Your task to perform on an android device: Search for vegetarian restaurants on Maps Image 0: 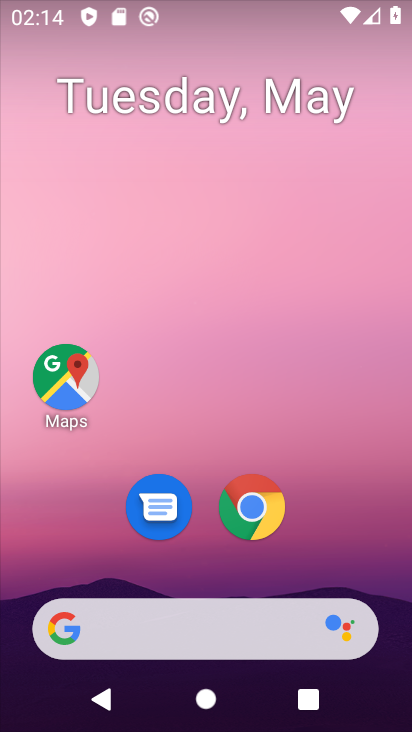
Step 0: click (44, 371)
Your task to perform on an android device: Search for vegetarian restaurants on Maps Image 1: 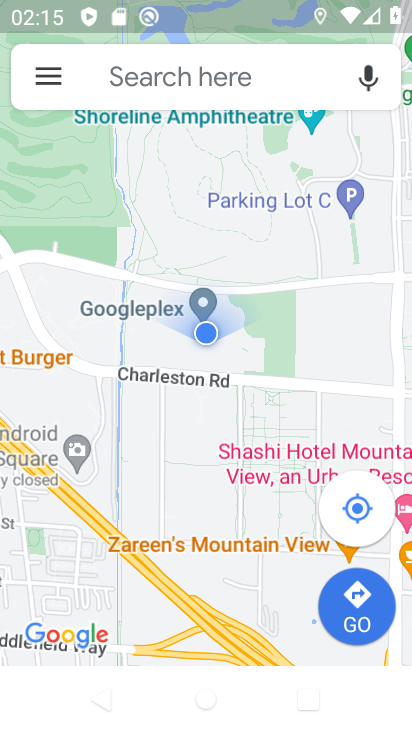
Step 1: click (161, 85)
Your task to perform on an android device: Search for vegetarian restaurants on Maps Image 2: 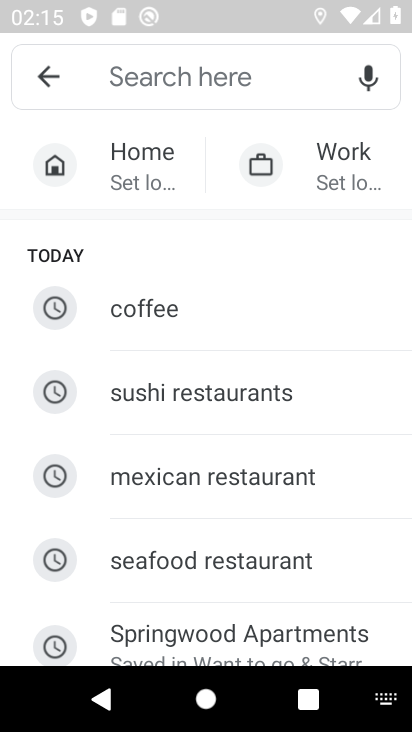
Step 2: drag from (170, 575) to (192, 224)
Your task to perform on an android device: Search for vegetarian restaurants on Maps Image 3: 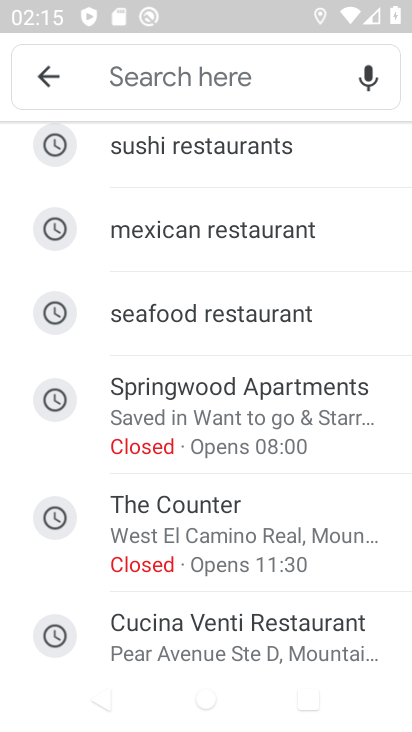
Step 3: drag from (185, 634) to (162, 728)
Your task to perform on an android device: Search for vegetarian restaurants on Maps Image 4: 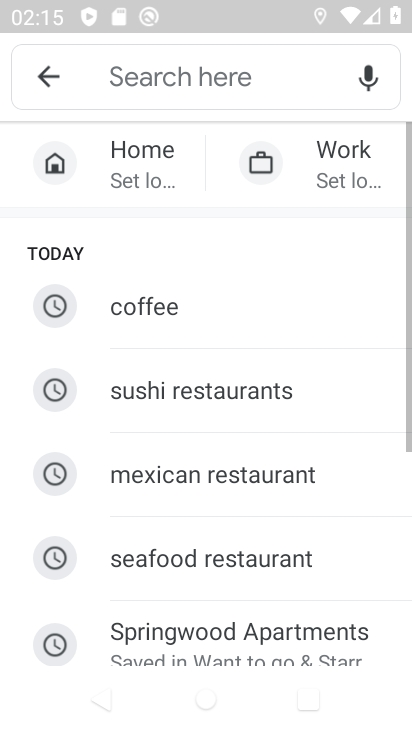
Step 4: click (189, 75)
Your task to perform on an android device: Search for vegetarian restaurants on Maps Image 5: 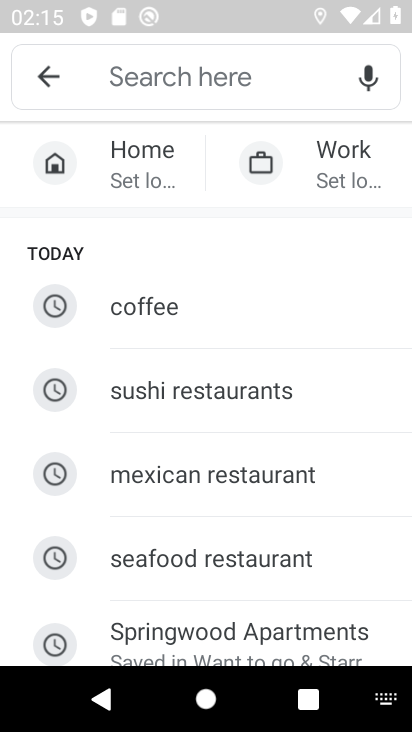
Step 5: type "vegetarian restaurant"
Your task to perform on an android device: Search for vegetarian restaurants on Maps Image 6: 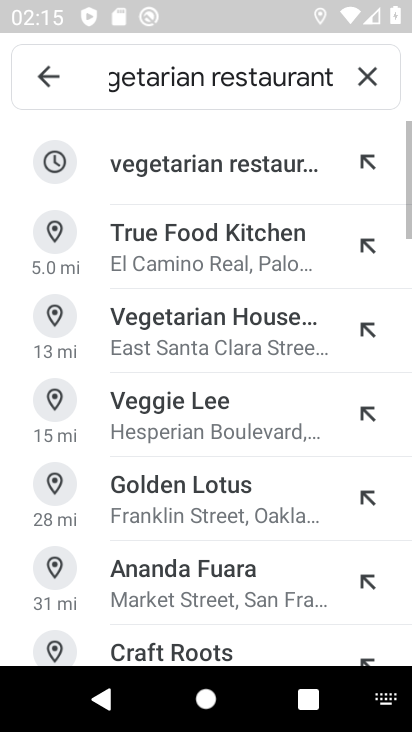
Step 6: click (216, 160)
Your task to perform on an android device: Search for vegetarian restaurants on Maps Image 7: 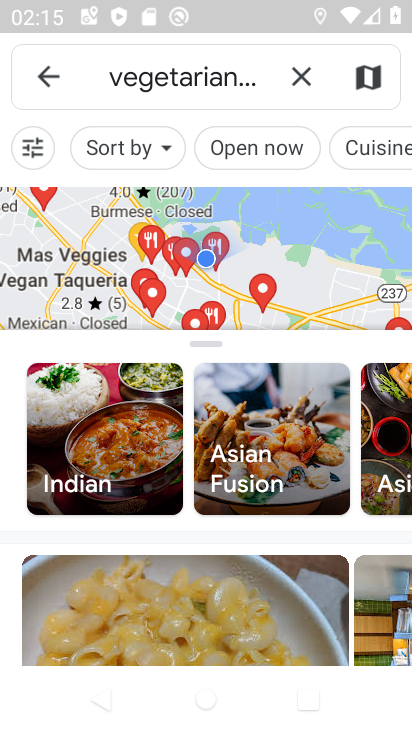
Step 7: task complete